Your task to perform on an android device: turn notification dots on Image 0: 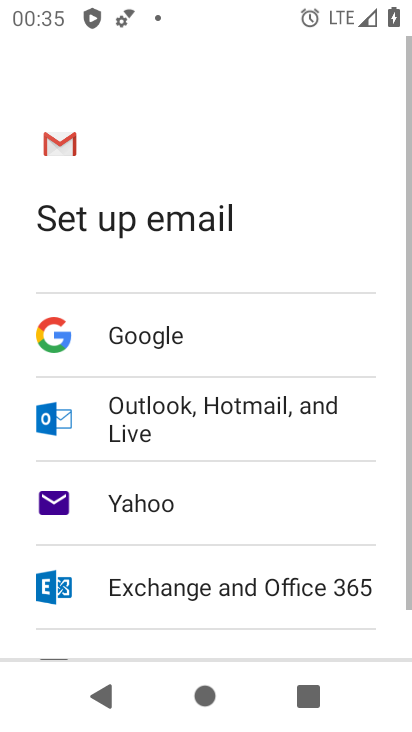
Step 0: press home button
Your task to perform on an android device: turn notification dots on Image 1: 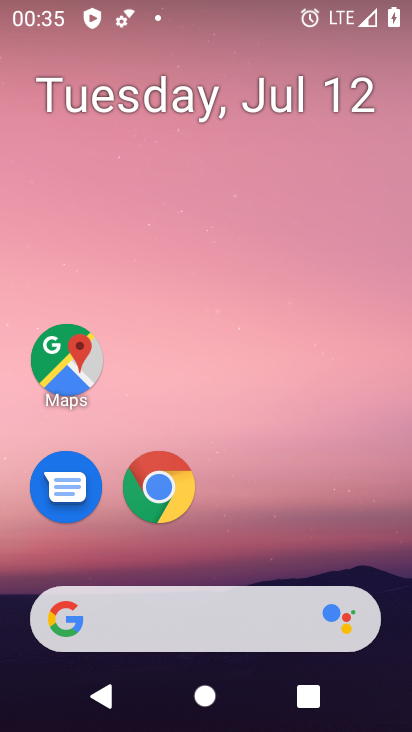
Step 1: drag from (346, 464) to (346, 114)
Your task to perform on an android device: turn notification dots on Image 2: 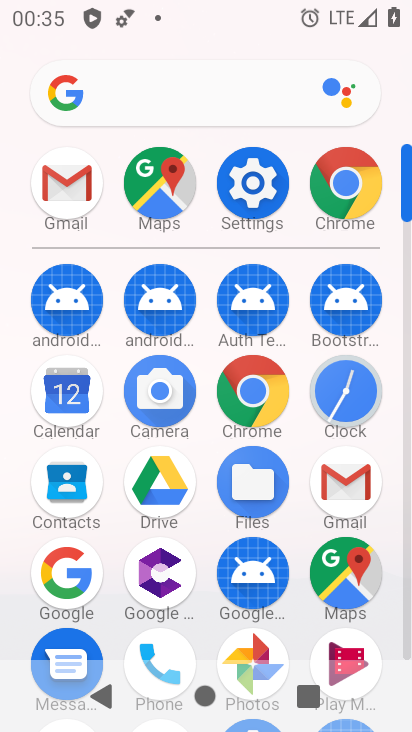
Step 2: click (262, 175)
Your task to perform on an android device: turn notification dots on Image 3: 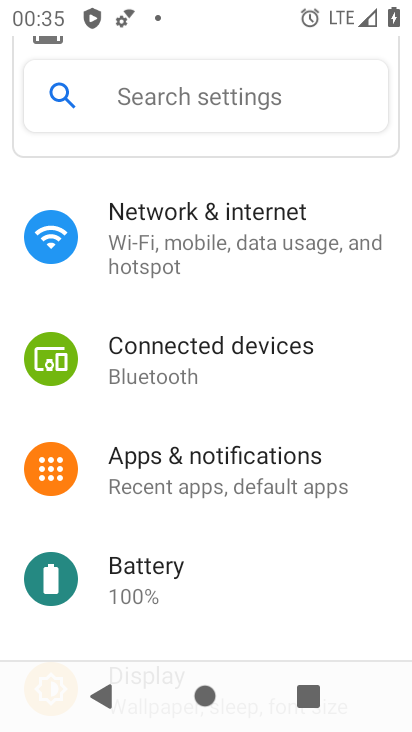
Step 3: drag from (338, 585) to (349, 386)
Your task to perform on an android device: turn notification dots on Image 4: 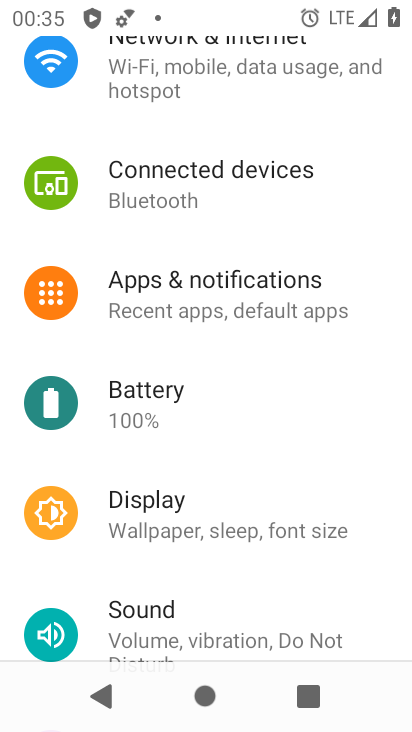
Step 4: drag from (353, 565) to (359, 410)
Your task to perform on an android device: turn notification dots on Image 5: 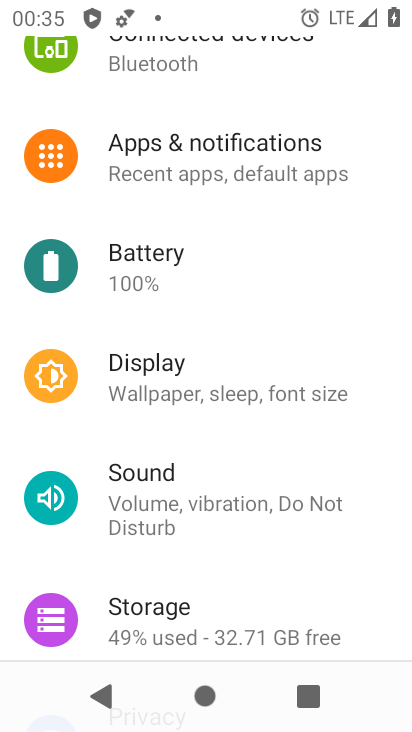
Step 5: drag from (340, 583) to (340, 421)
Your task to perform on an android device: turn notification dots on Image 6: 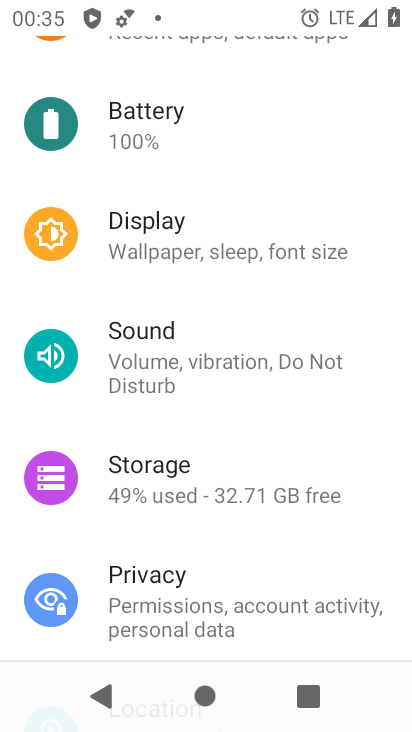
Step 6: drag from (342, 567) to (350, 397)
Your task to perform on an android device: turn notification dots on Image 7: 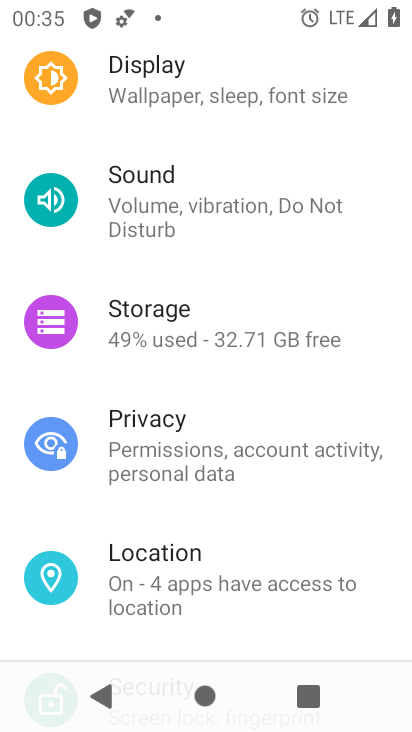
Step 7: drag from (360, 621) to (359, 462)
Your task to perform on an android device: turn notification dots on Image 8: 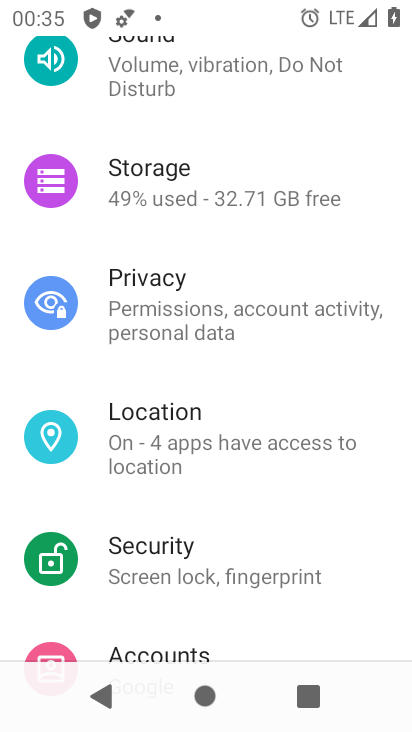
Step 8: drag from (356, 629) to (356, 474)
Your task to perform on an android device: turn notification dots on Image 9: 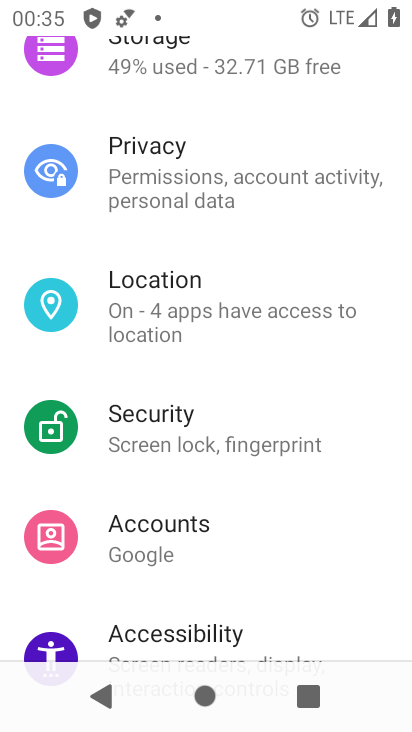
Step 9: drag from (344, 610) to (347, 451)
Your task to perform on an android device: turn notification dots on Image 10: 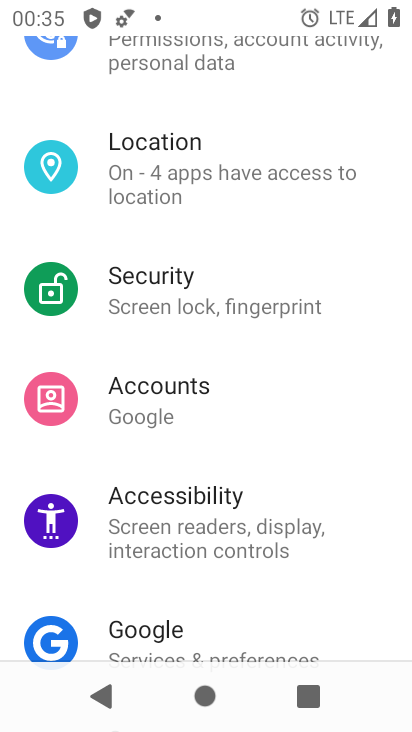
Step 10: drag from (363, 605) to (347, 391)
Your task to perform on an android device: turn notification dots on Image 11: 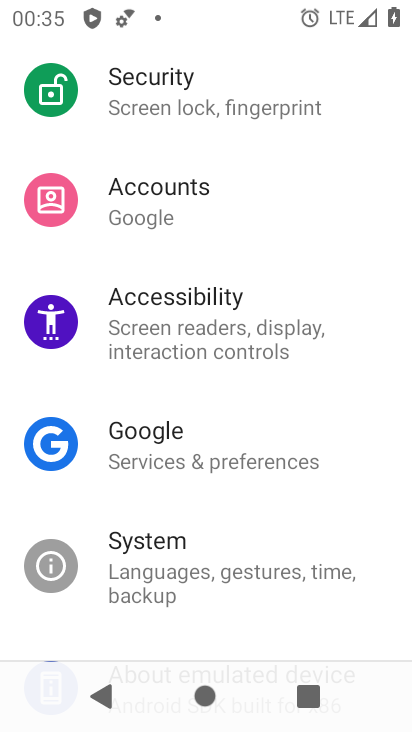
Step 11: drag from (347, 294) to (366, 466)
Your task to perform on an android device: turn notification dots on Image 12: 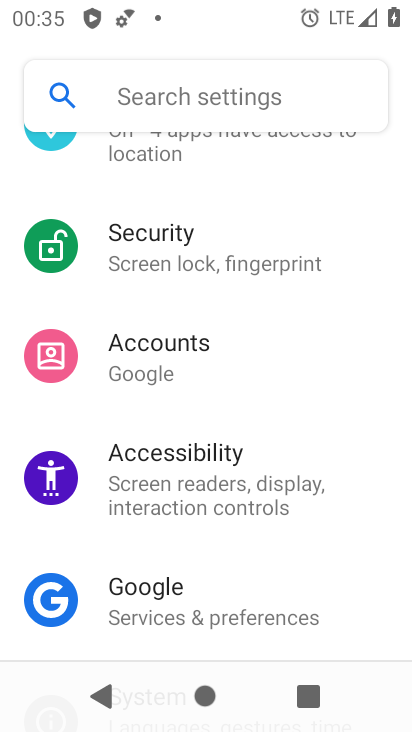
Step 12: drag from (353, 292) to (361, 468)
Your task to perform on an android device: turn notification dots on Image 13: 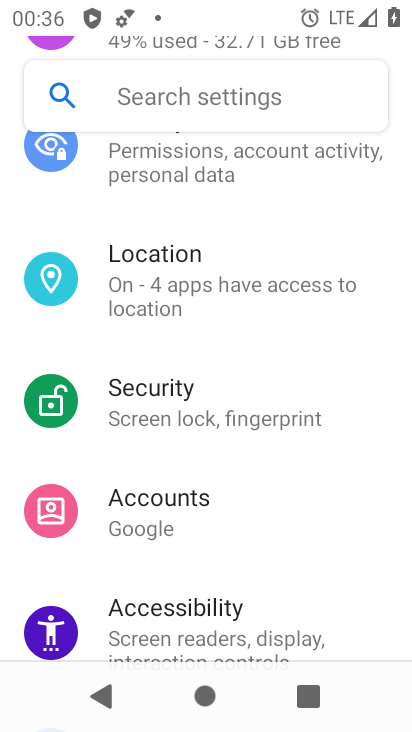
Step 13: drag from (356, 281) to (365, 455)
Your task to perform on an android device: turn notification dots on Image 14: 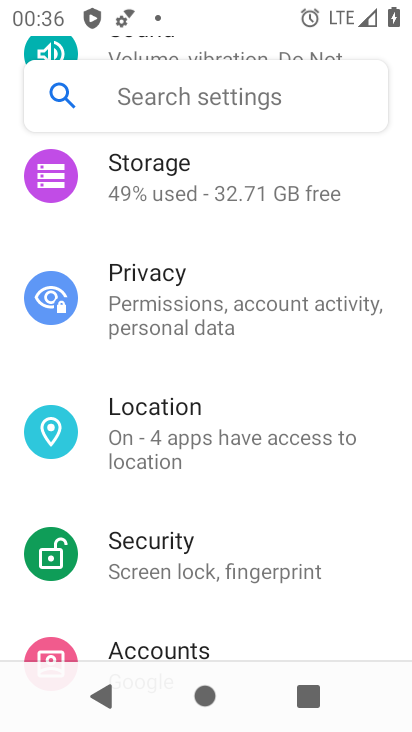
Step 14: drag from (362, 229) to (366, 440)
Your task to perform on an android device: turn notification dots on Image 15: 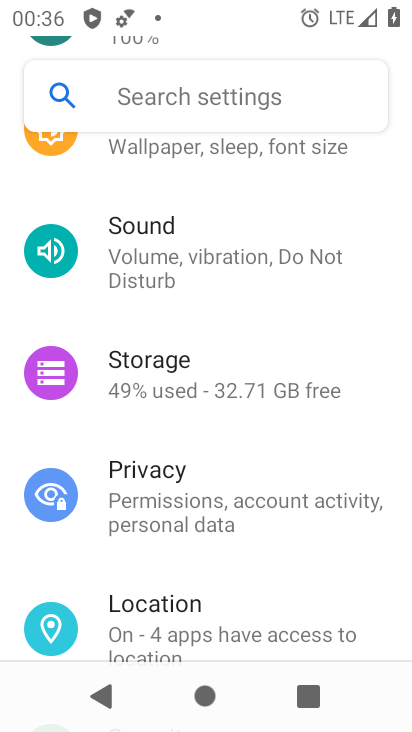
Step 15: drag from (359, 231) to (359, 413)
Your task to perform on an android device: turn notification dots on Image 16: 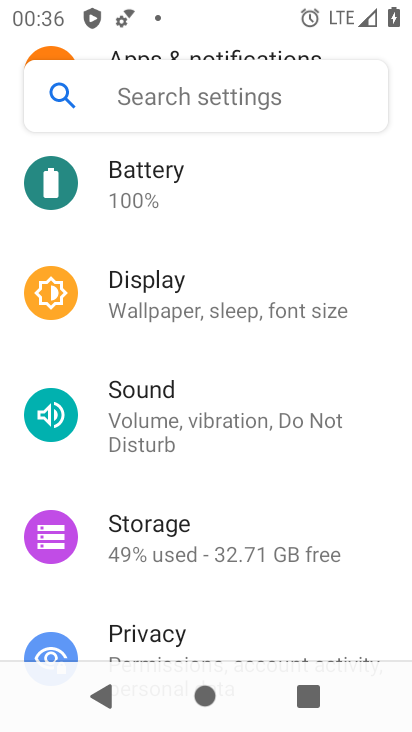
Step 16: drag from (332, 211) to (331, 403)
Your task to perform on an android device: turn notification dots on Image 17: 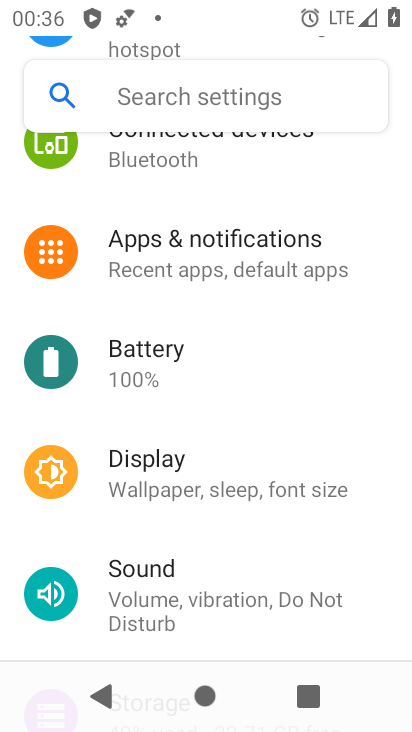
Step 17: drag from (342, 209) to (347, 413)
Your task to perform on an android device: turn notification dots on Image 18: 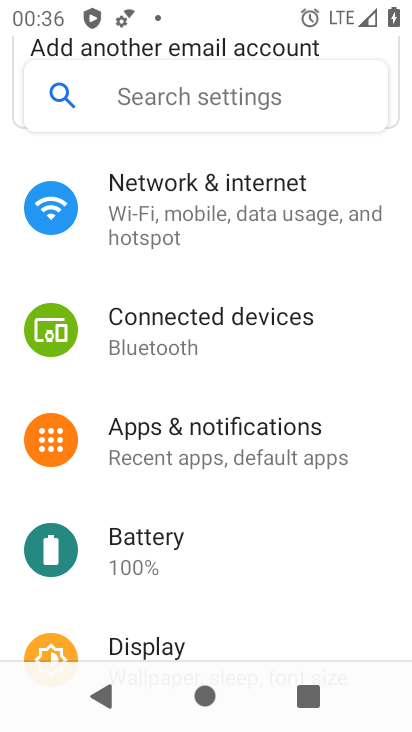
Step 18: click (263, 447)
Your task to perform on an android device: turn notification dots on Image 19: 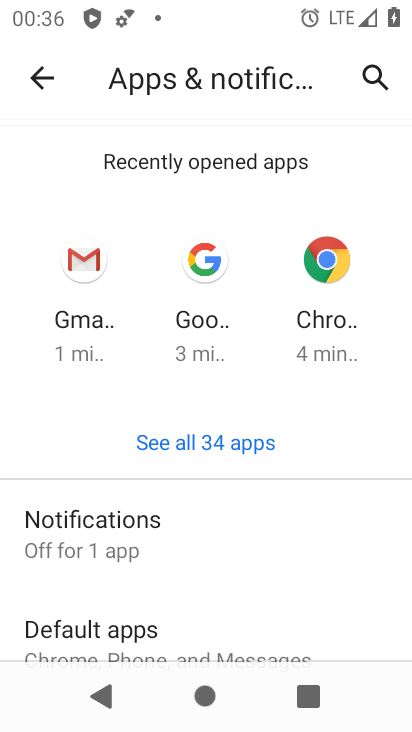
Step 19: click (132, 538)
Your task to perform on an android device: turn notification dots on Image 20: 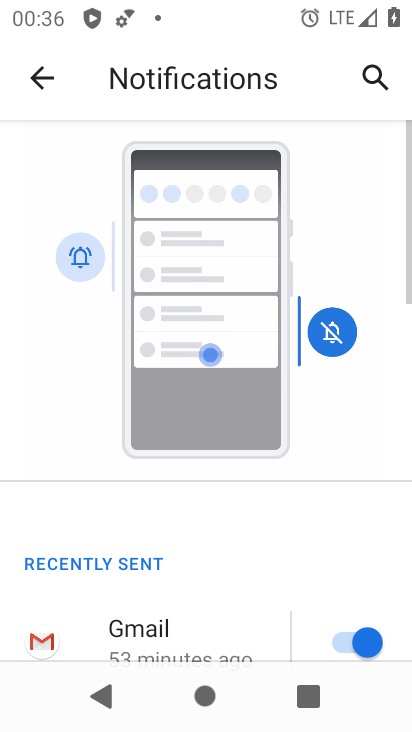
Step 20: drag from (292, 543) to (309, 406)
Your task to perform on an android device: turn notification dots on Image 21: 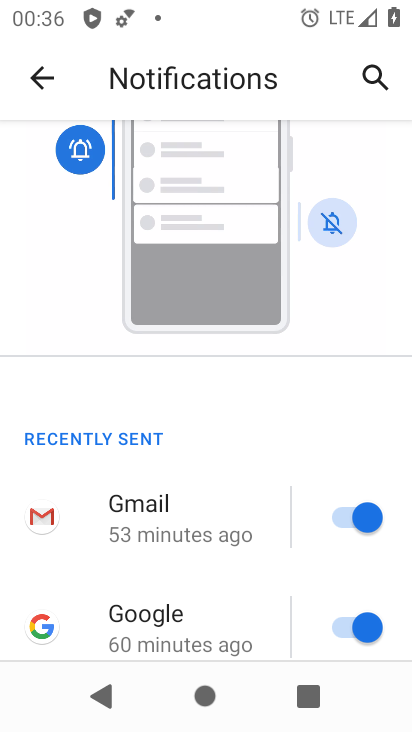
Step 21: drag from (260, 573) to (260, 435)
Your task to perform on an android device: turn notification dots on Image 22: 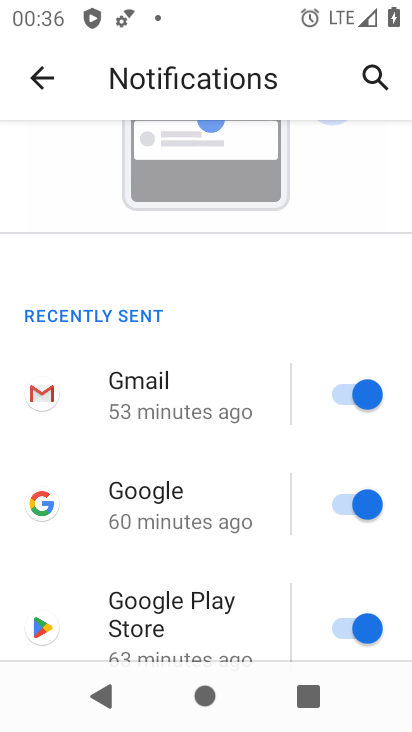
Step 22: drag from (253, 558) to (259, 443)
Your task to perform on an android device: turn notification dots on Image 23: 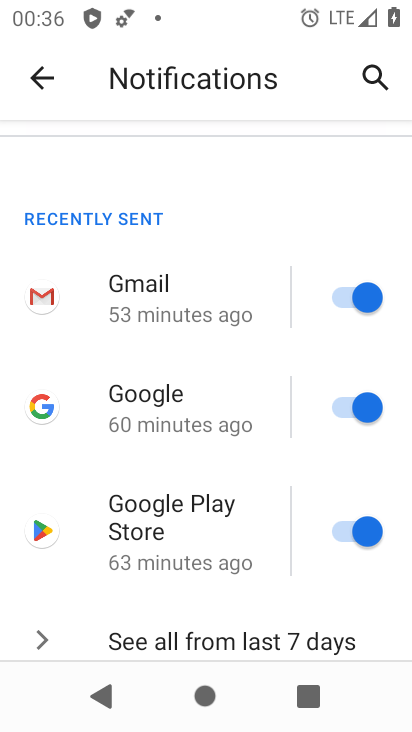
Step 23: drag from (260, 584) to (265, 444)
Your task to perform on an android device: turn notification dots on Image 24: 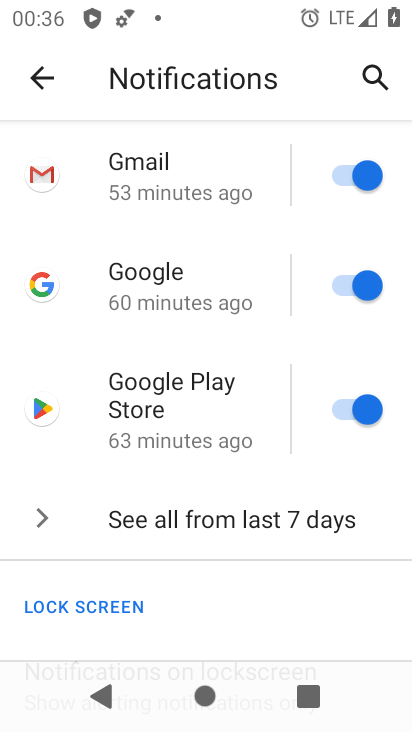
Step 24: drag from (243, 566) to (250, 438)
Your task to perform on an android device: turn notification dots on Image 25: 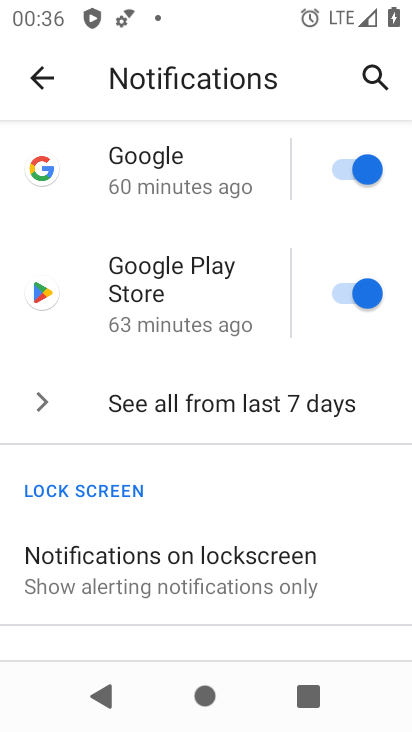
Step 25: drag from (238, 574) to (238, 354)
Your task to perform on an android device: turn notification dots on Image 26: 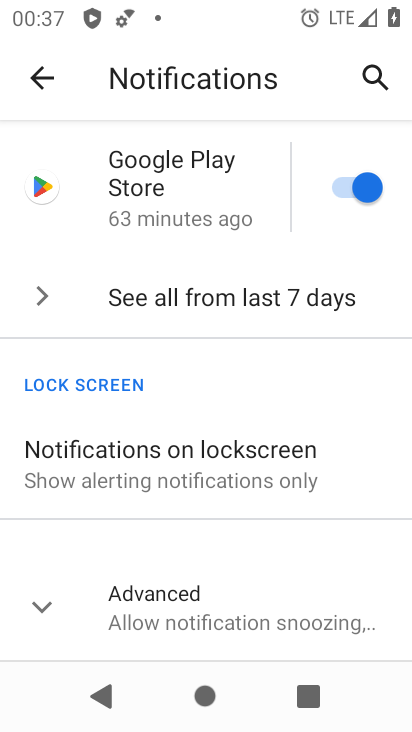
Step 26: click (214, 601)
Your task to perform on an android device: turn notification dots on Image 27: 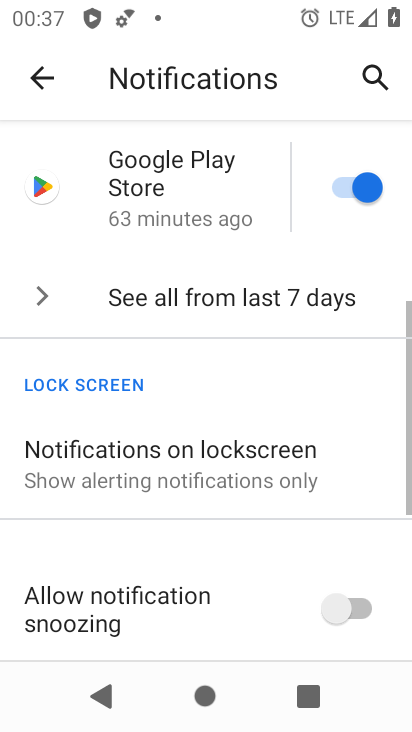
Step 27: drag from (262, 514) to (253, 324)
Your task to perform on an android device: turn notification dots on Image 28: 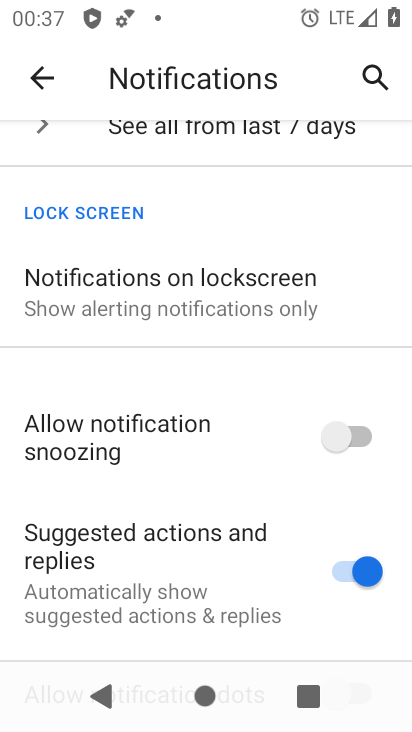
Step 28: drag from (255, 576) to (258, 403)
Your task to perform on an android device: turn notification dots on Image 29: 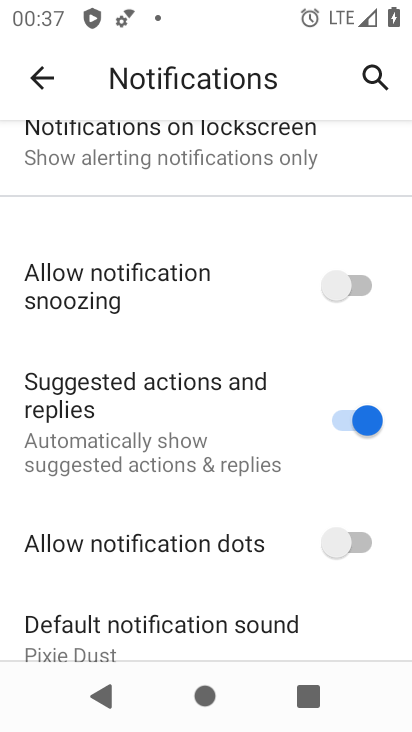
Step 29: click (329, 534)
Your task to perform on an android device: turn notification dots on Image 30: 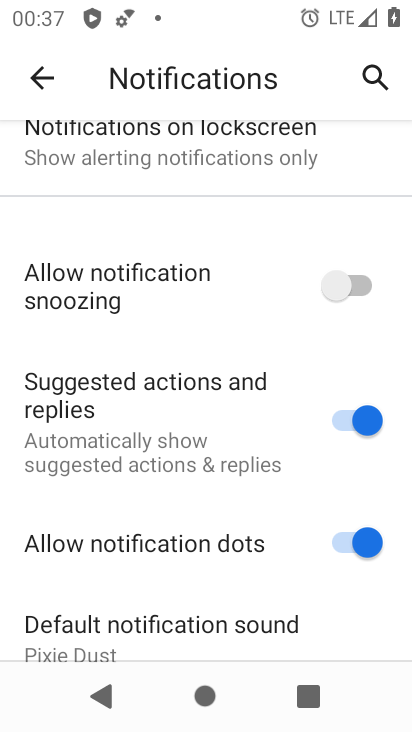
Step 30: task complete